Your task to perform on an android device: Check the news Image 0: 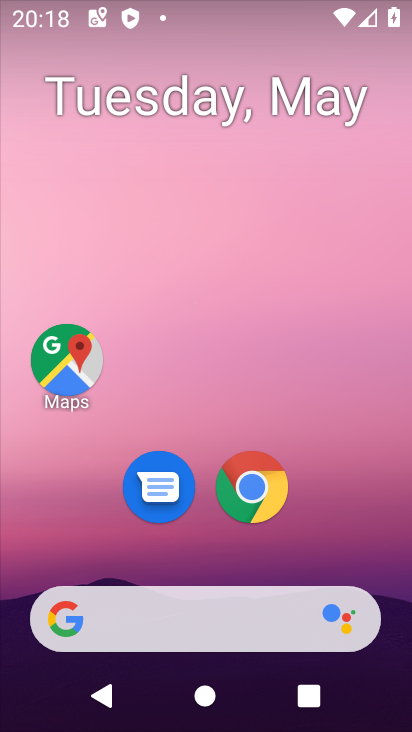
Step 0: click (169, 628)
Your task to perform on an android device: Check the news Image 1: 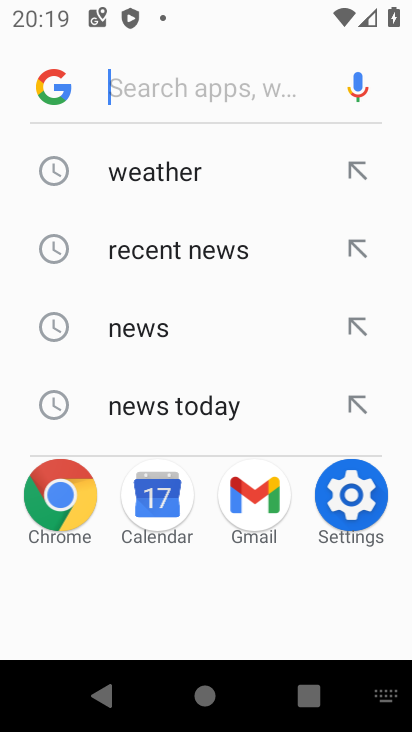
Step 1: click (202, 321)
Your task to perform on an android device: Check the news Image 2: 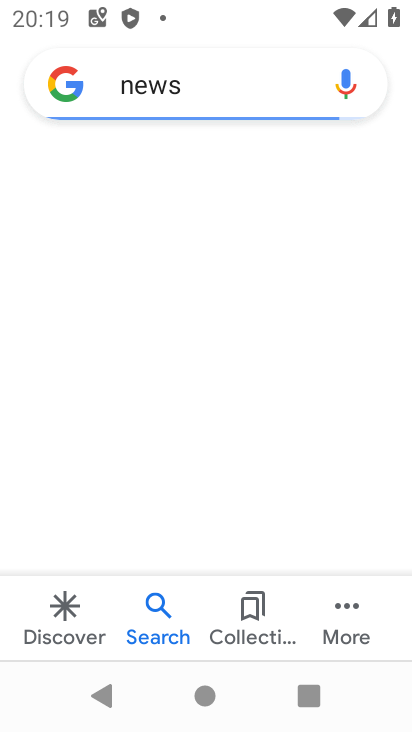
Step 2: task complete